Your task to perform on an android device: toggle priority inbox in the gmail app Image 0: 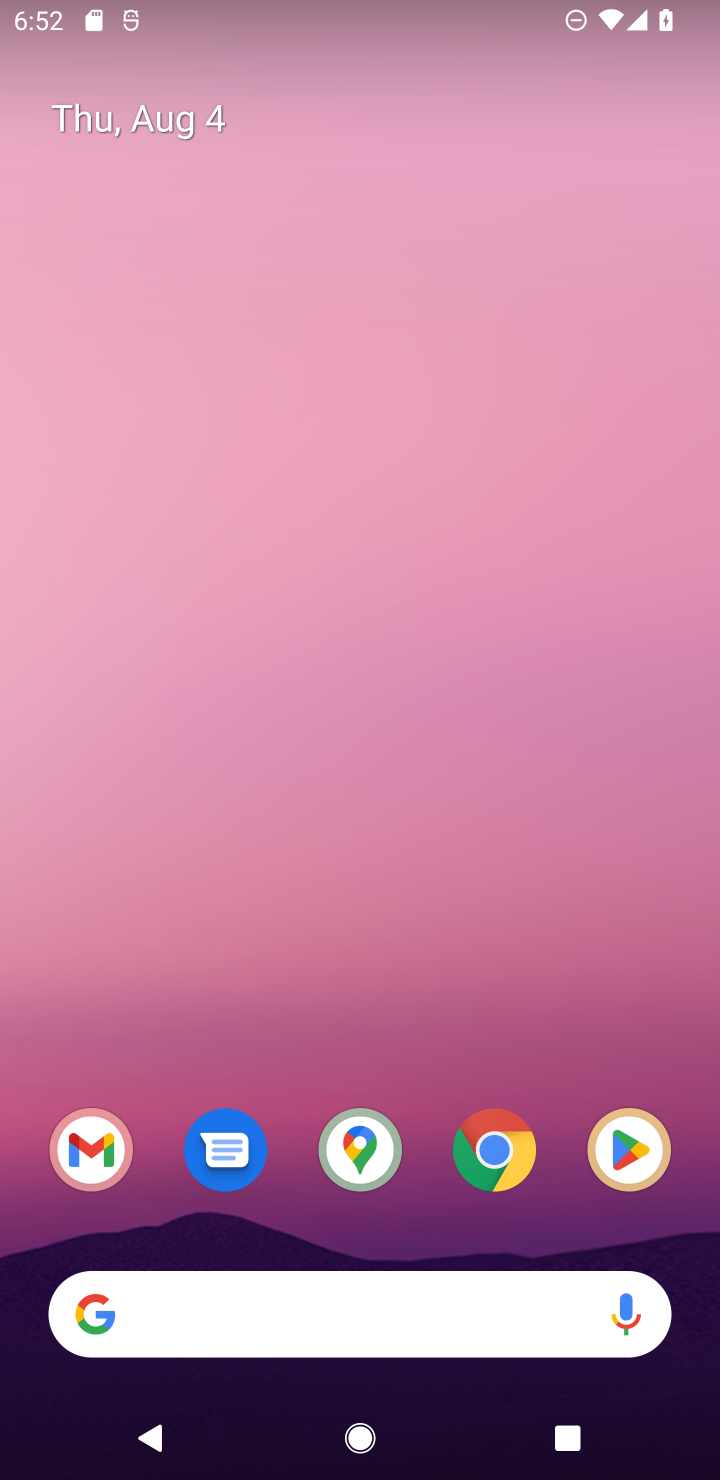
Step 0: drag from (471, 1326) to (531, 71)
Your task to perform on an android device: toggle priority inbox in the gmail app Image 1: 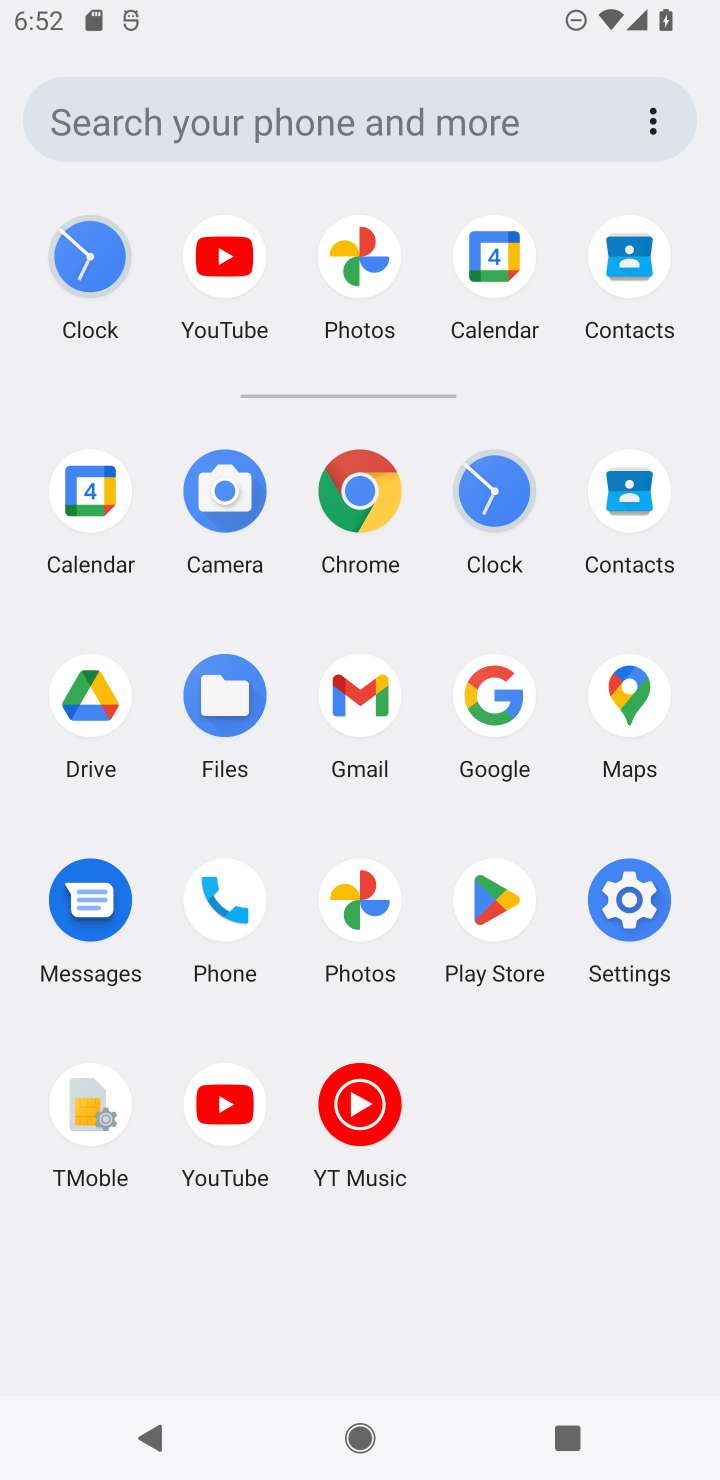
Step 1: click (346, 700)
Your task to perform on an android device: toggle priority inbox in the gmail app Image 2: 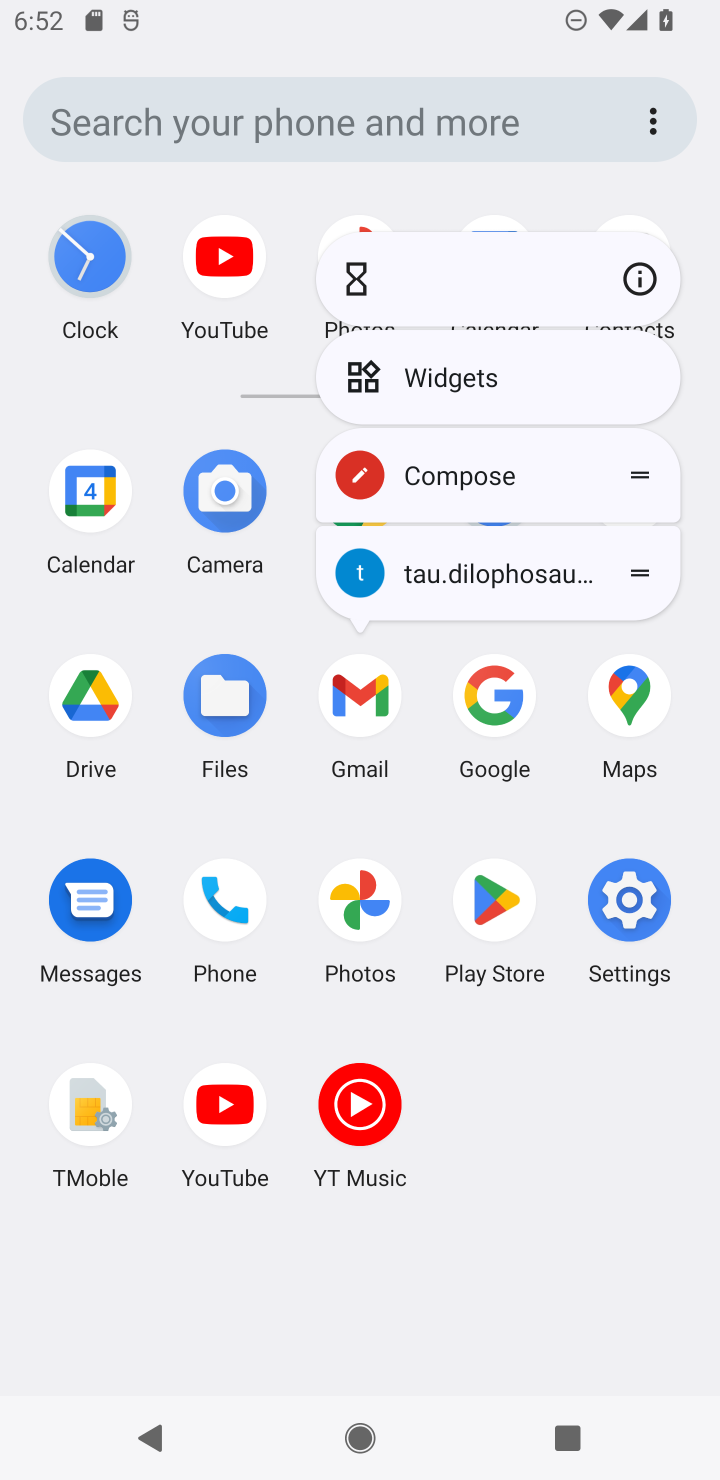
Step 2: click (346, 700)
Your task to perform on an android device: toggle priority inbox in the gmail app Image 3: 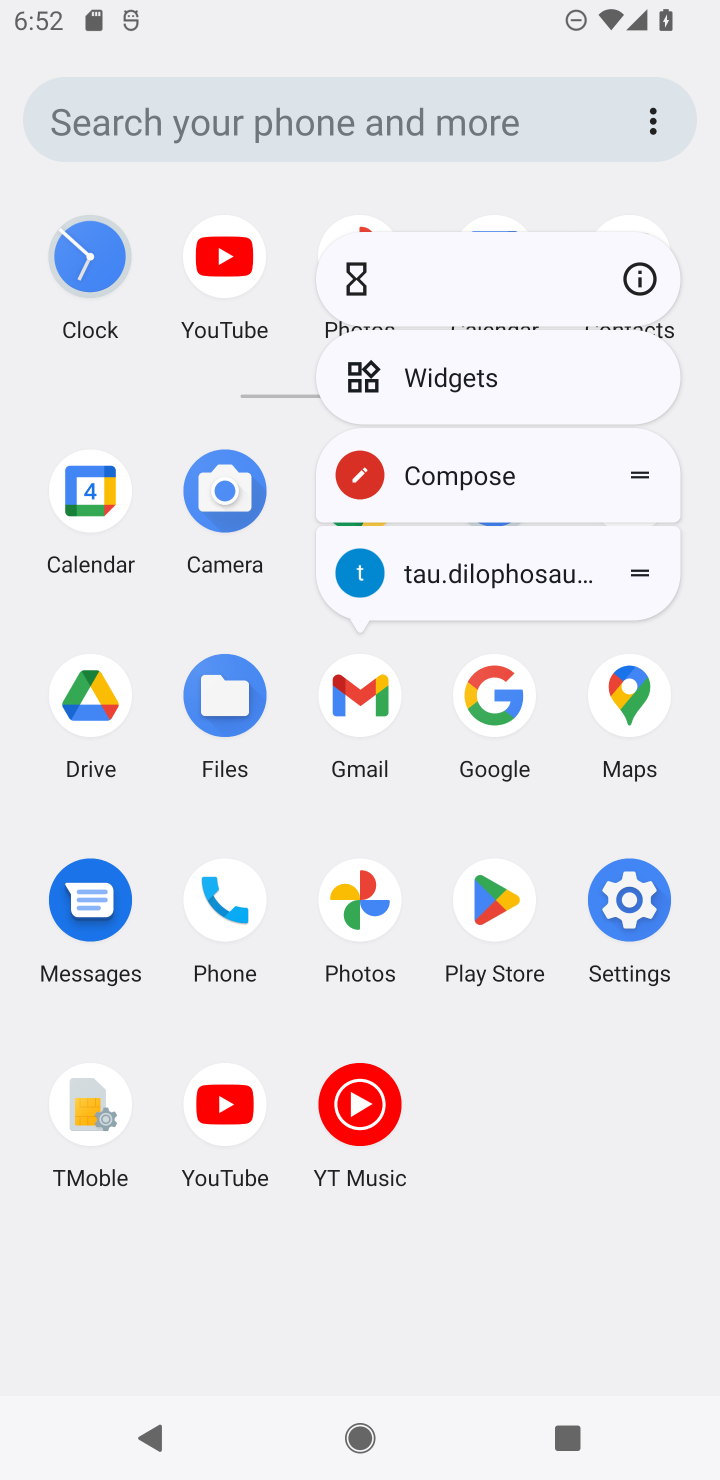
Step 3: click (317, 740)
Your task to perform on an android device: toggle priority inbox in the gmail app Image 4: 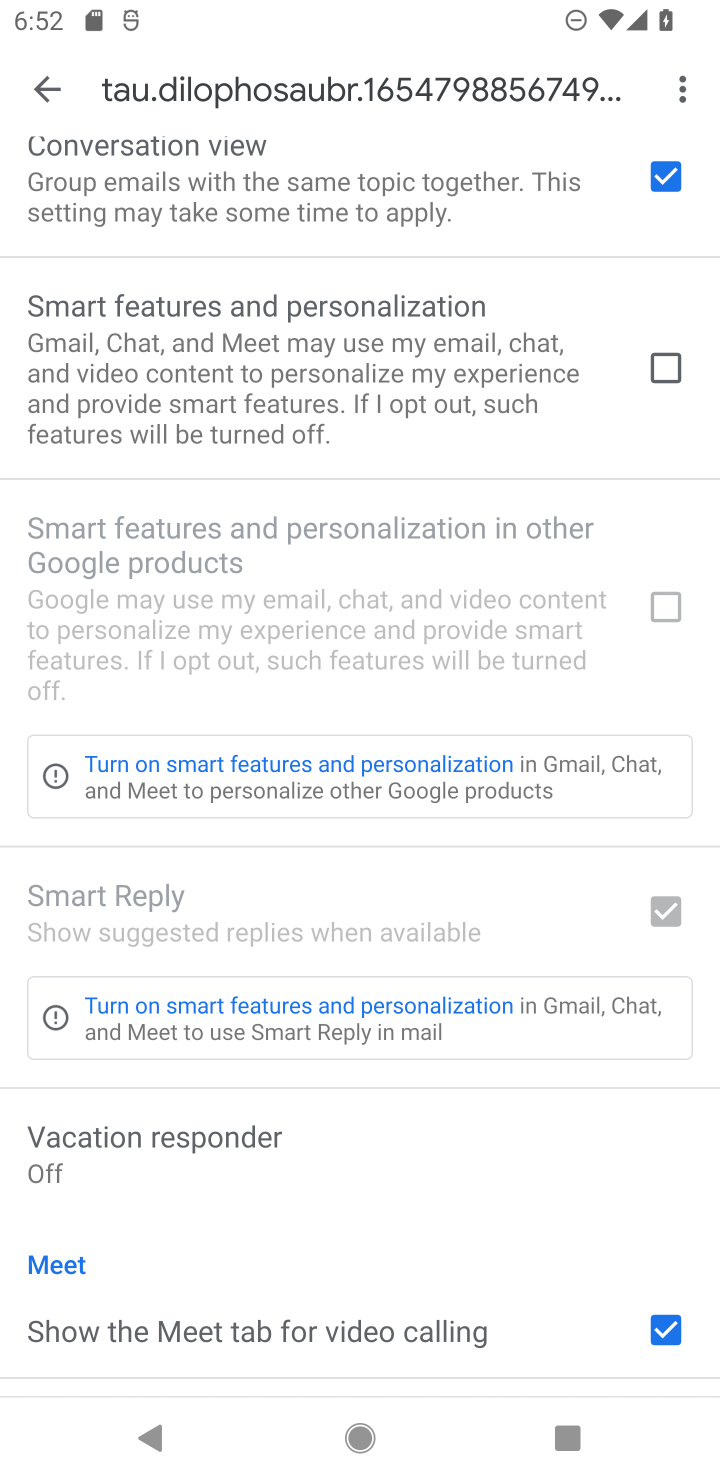
Step 4: press back button
Your task to perform on an android device: toggle priority inbox in the gmail app Image 5: 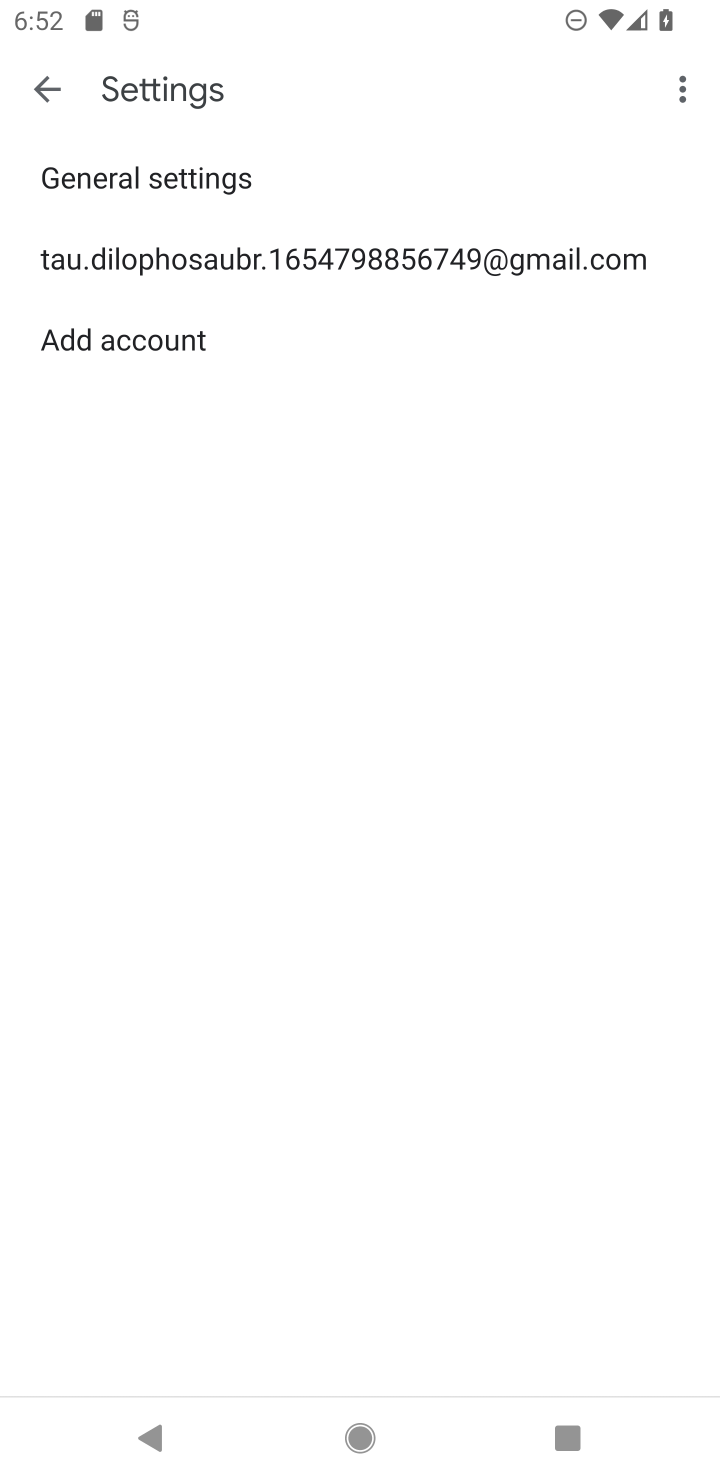
Step 5: click (303, 255)
Your task to perform on an android device: toggle priority inbox in the gmail app Image 6: 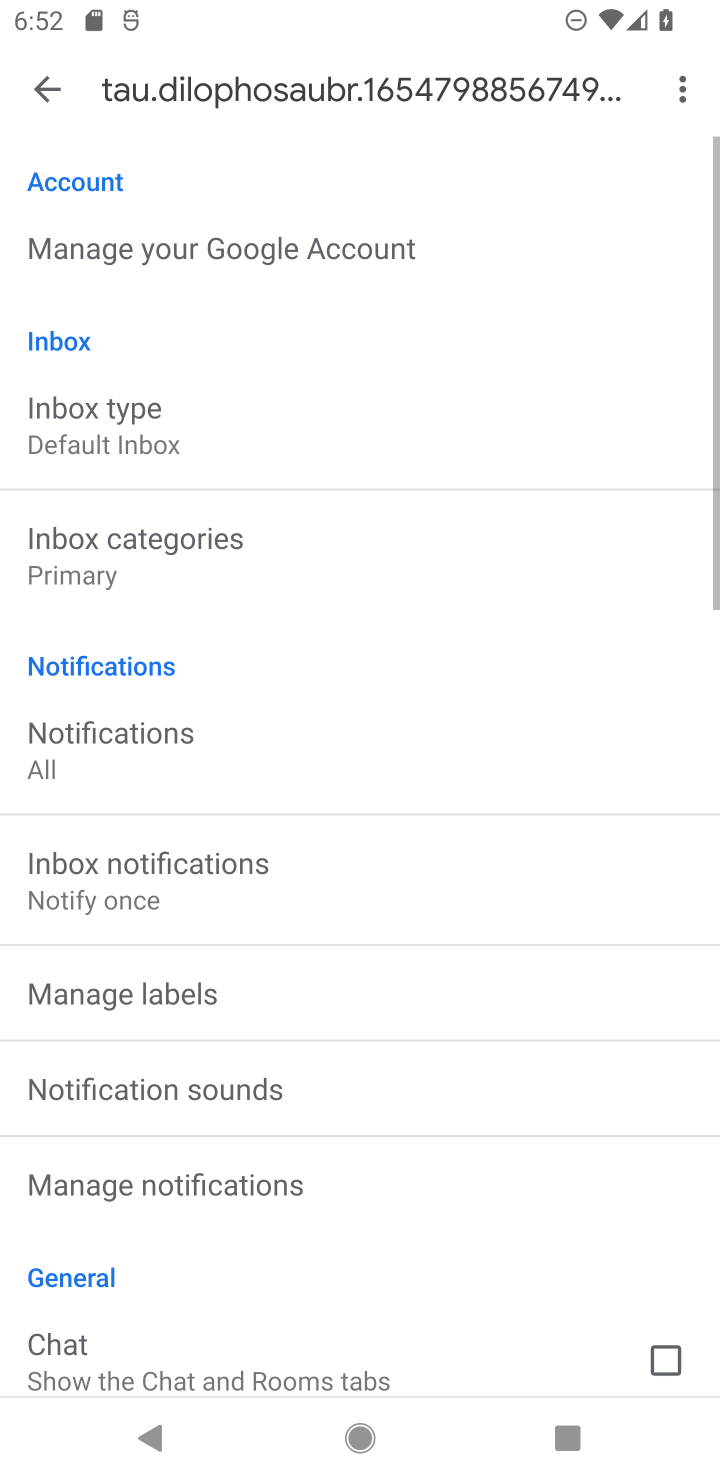
Step 6: click (151, 471)
Your task to perform on an android device: toggle priority inbox in the gmail app Image 7: 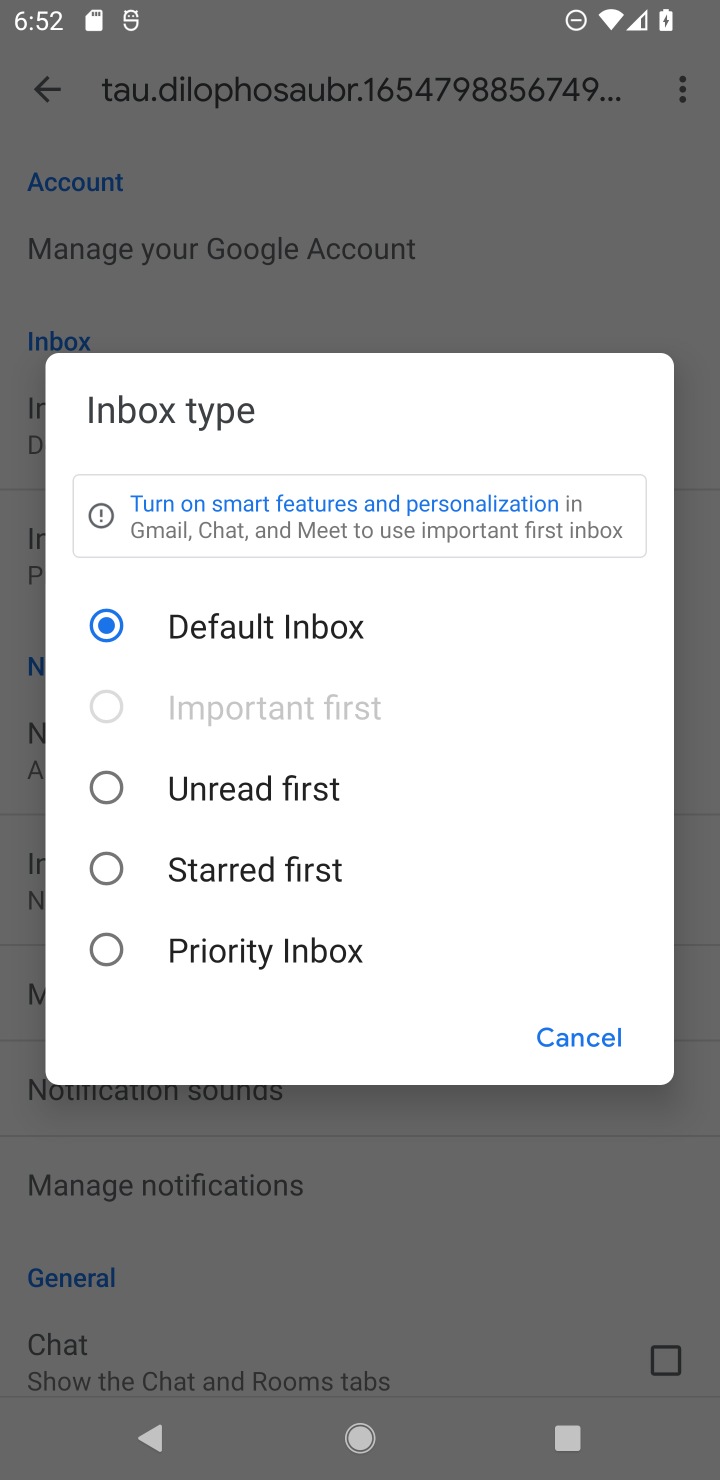
Step 7: click (87, 942)
Your task to perform on an android device: toggle priority inbox in the gmail app Image 8: 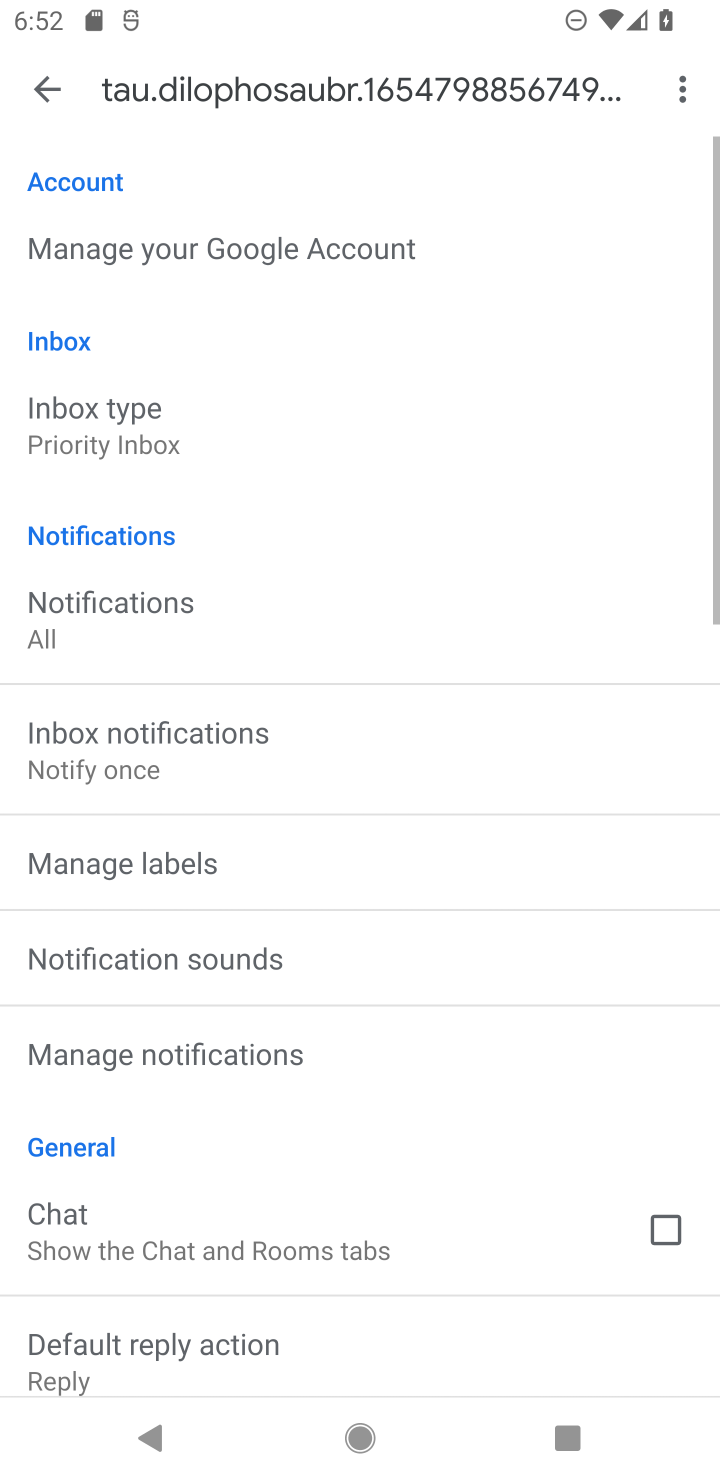
Step 8: task complete